Your task to perform on an android device: Go to wifi settings Image 0: 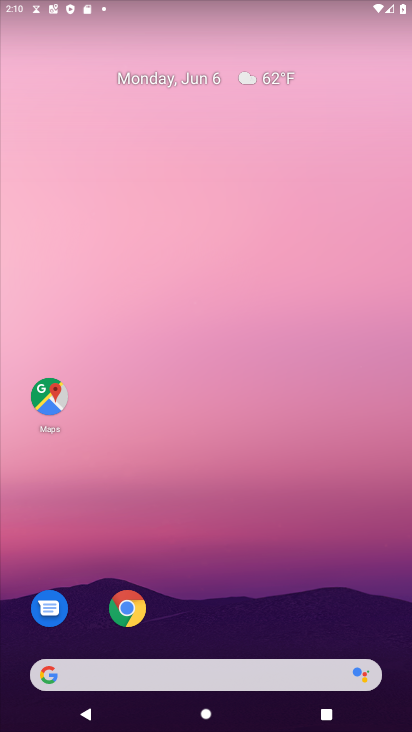
Step 0: drag from (256, 613) to (348, 36)
Your task to perform on an android device: Go to wifi settings Image 1: 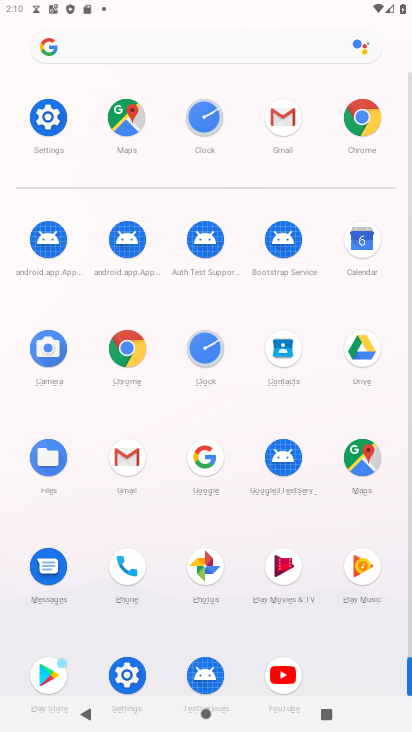
Step 1: click (49, 109)
Your task to perform on an android device: Go to wifi settings Image 2: 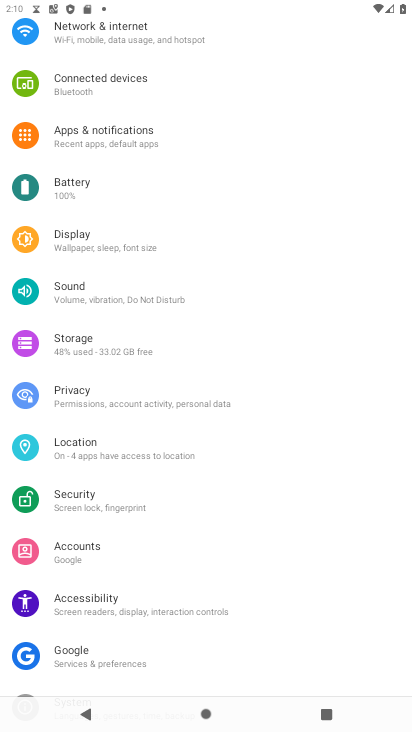
Step 2: drag from (124, 138) to (129, 583)
Your task to perform on an android device: Go to wifi settings Image 3: 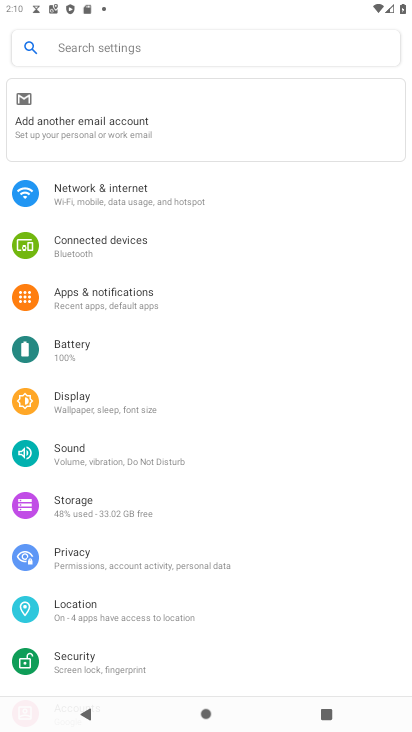
Step 3: click (87, 187)
Your task to perform on an android device: Go to wifi settings Image 4: 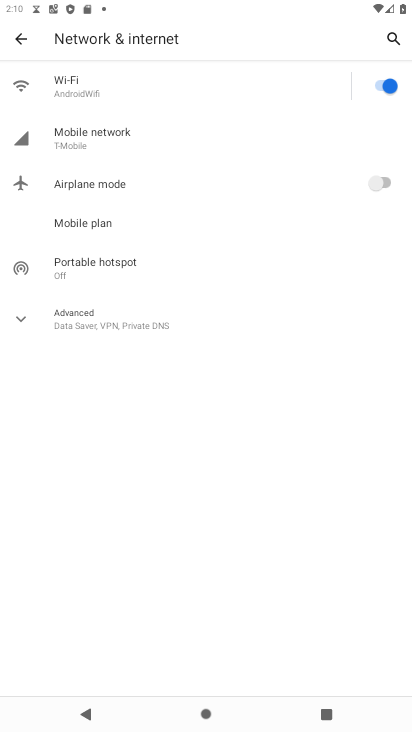
Step 4: click (52, 64)
Your task to perform on an android device: Go to wifi settings Image 5: 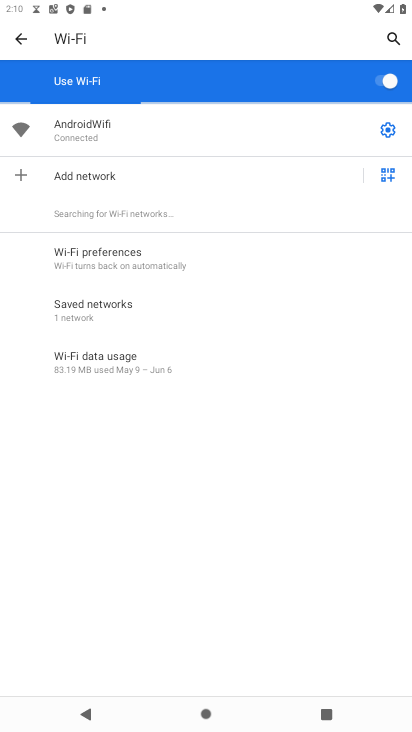
Step 5: task complete